Your task to perform on an android device: Turn off the flashlight Image 0: 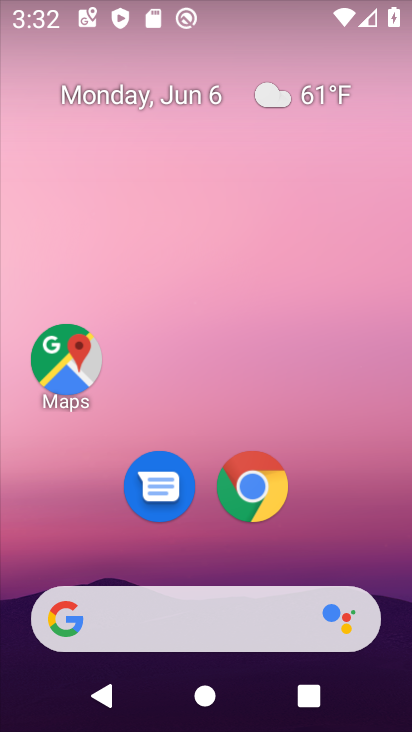
Step 0: drag from (337, 483) to (342, 85)
Your task to perform on an android device: Turn off the flashlight Image 1: 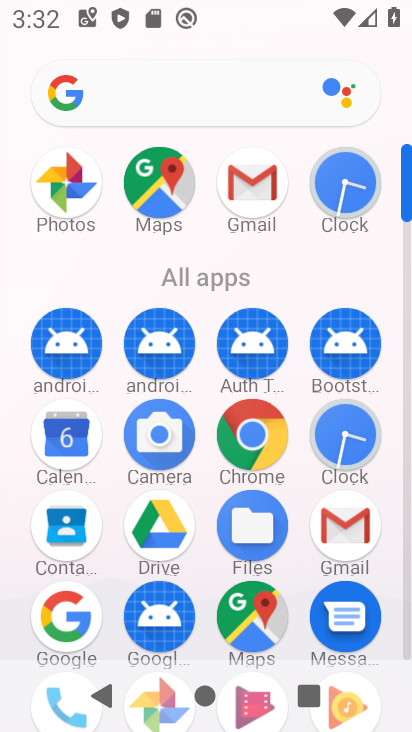
Step 1: drag from (296, 533) to (301, 61)
Your task to perform on an android device: Turn off the flashlight Image 2: 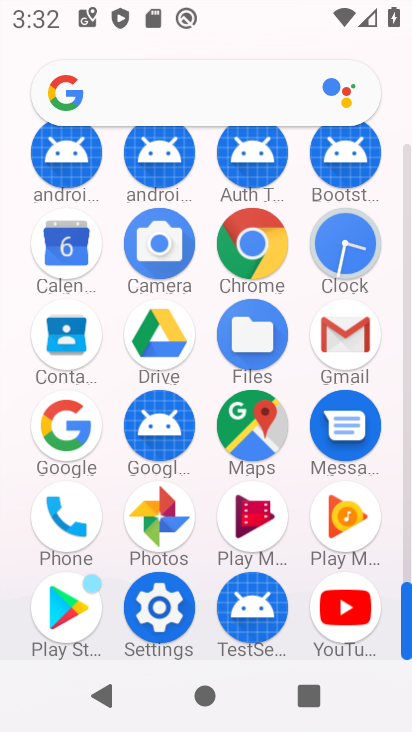
Step 2: click (159, 611)
Your task to perform on an android device: Turn off the flashlight Image 3: 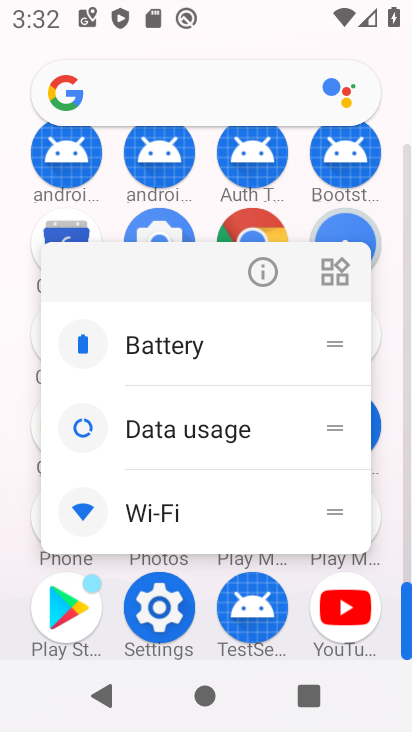
Step 3: click (159, 611)
Your task to perform on an android device: Turn off the flashlight Image 4: 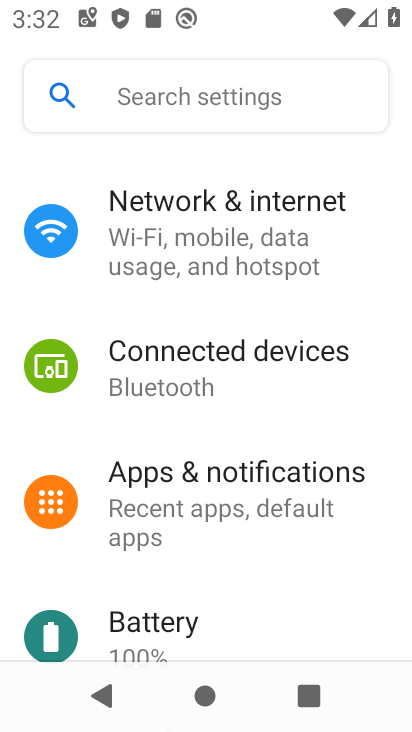
Step 4: click (155, 605)
Your task to perform on an android device: Turn off the flashlight Image 5: 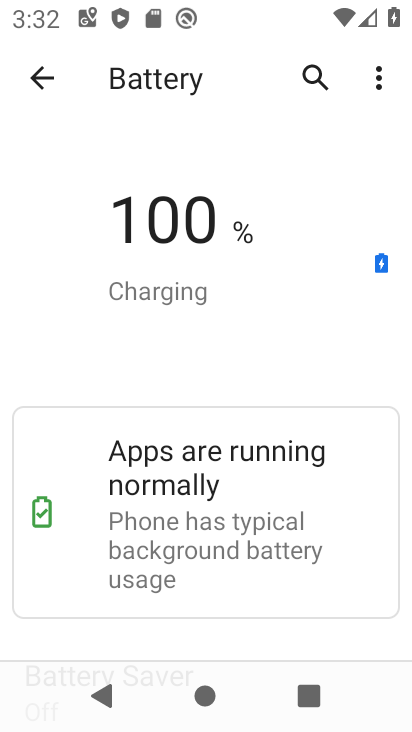
Step 5: click (37, 73)
Your task to perform on an android device: Turn off the flashlight Image 6: 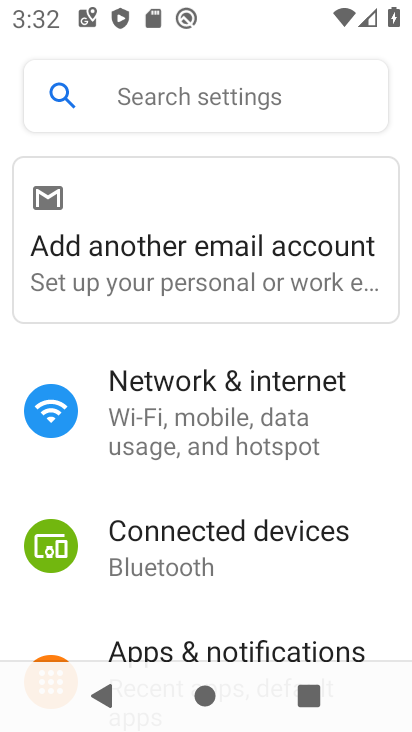
Step 6: drag from (250, 656) to (297, 252)
Your task to perform on an android device: Turn off the flashlight Image 7: 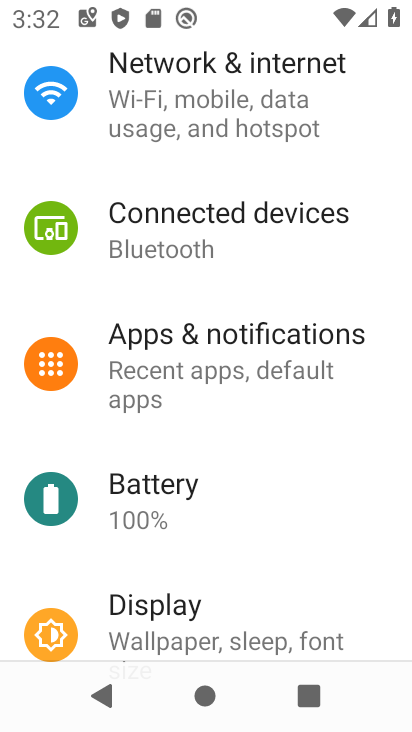
Step 7: click (182, 616)
Your task to perform on an android device: Turn off the flashlight Image 8: 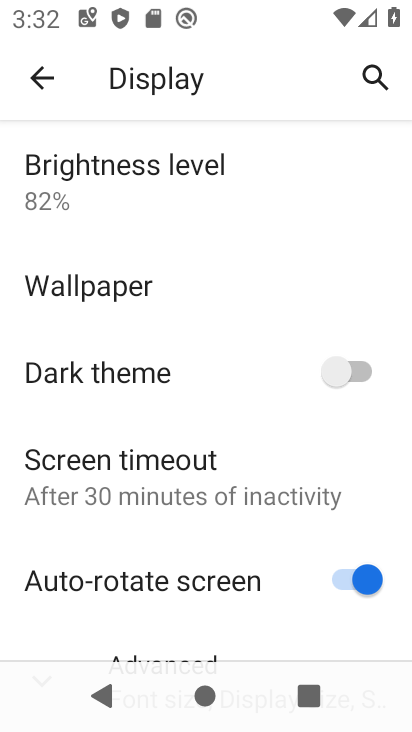
Step 8: task complete